Your task to perform on an android device: Check out the new nike air max 2020. Image 0: 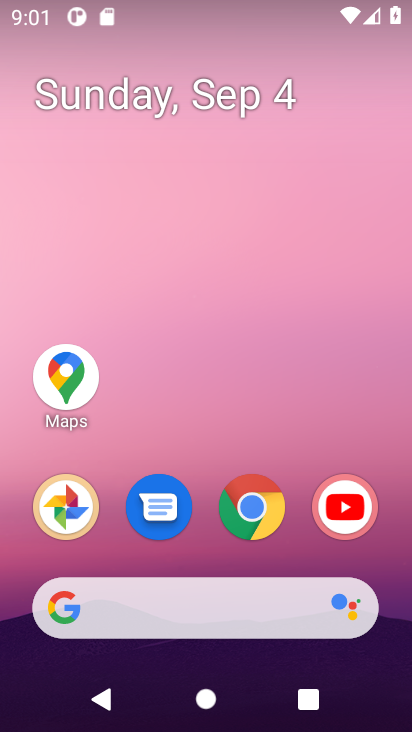
Step 0: click (250, 508)
Your task to perform on an android device: Check out the new nike air max 2020. Image 1: 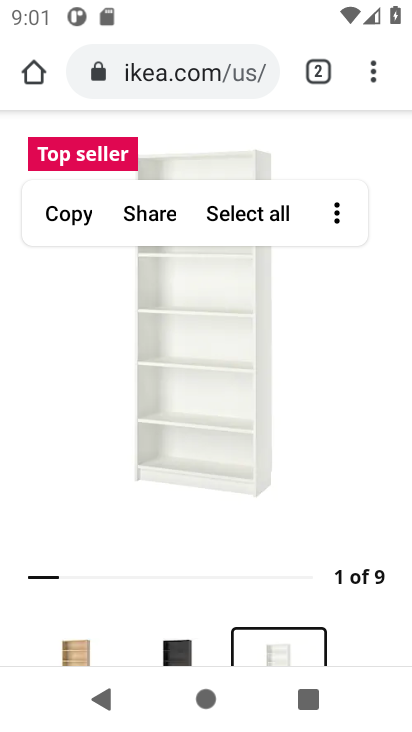
Step 1: click (151, 55)
Your task to perform on an android device: Check out the new nike air max 2020. Image 2: 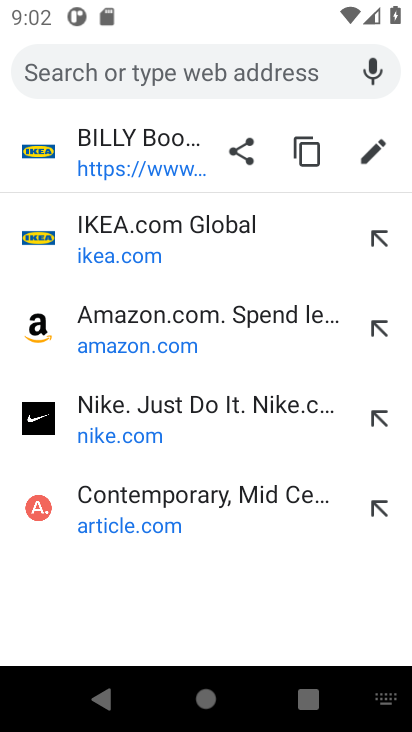
Step 2: type "nike air max 2020"
Your task to perform on an android device: Check out the new nike air max 2020. Image 3: 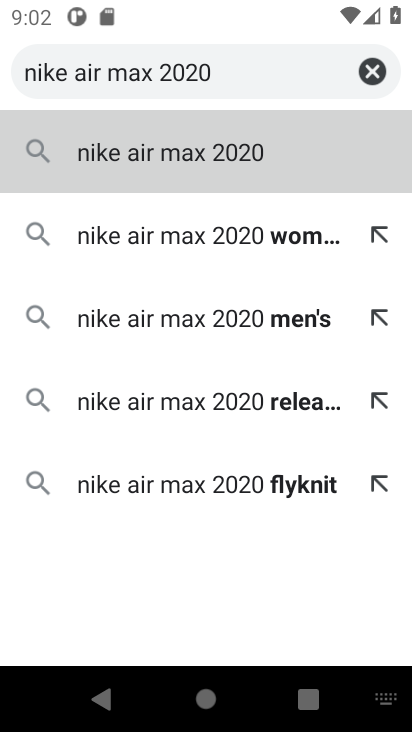
Step 3: click (171, 139)
Your task to perform on an android device: Check out the new nike air max 2020. Image 4: 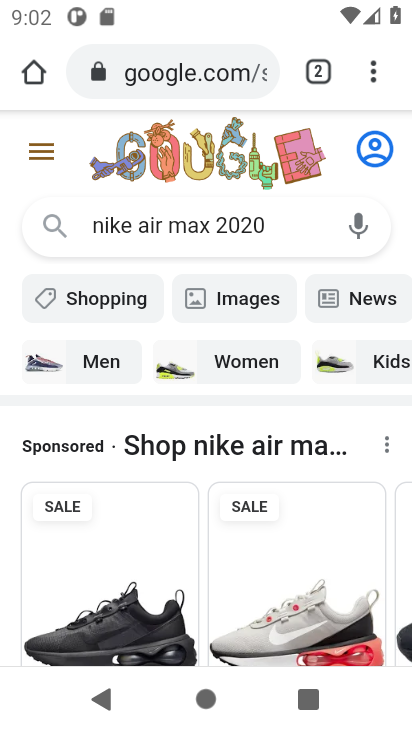
Step 4: task complete